Your task to perform on an android device: change keyboard looks Image 0: 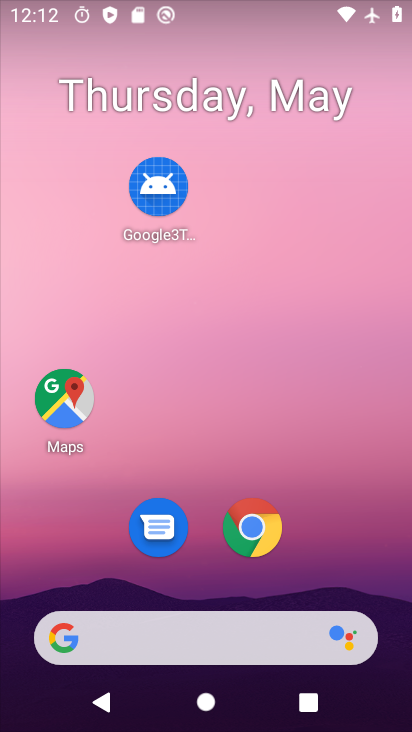
Step 0: press home button
Your task to perform on an android device: change keyboard looks Image 1: 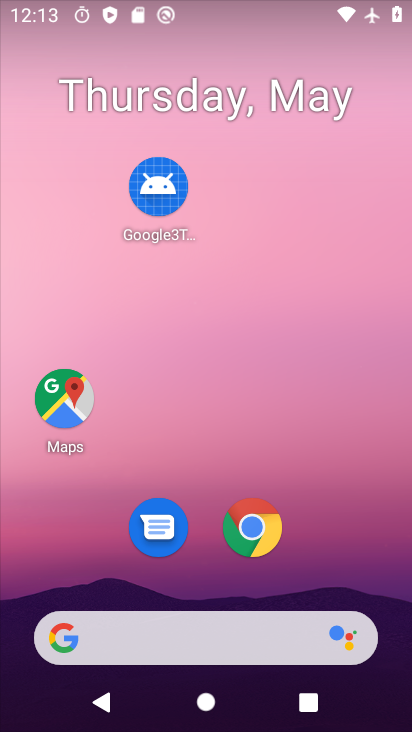
Step 1: drag from (212, 583) to (257, 115)
Your task to perform on an android device: change keyboard looks Image 2: 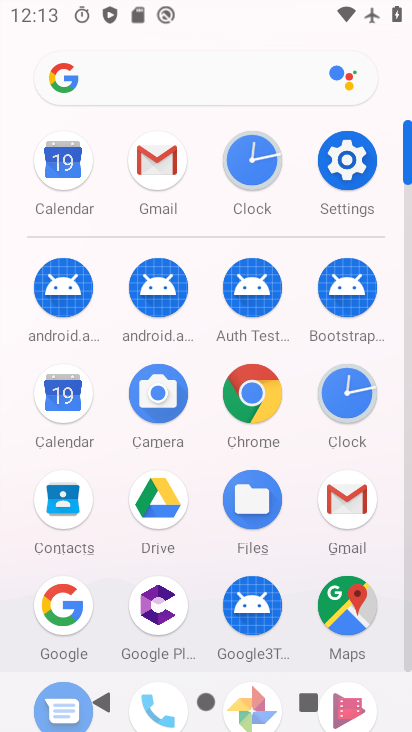
Step 2: click (343, 164)
Your task to perform on an android device: change keyboard looks Image 3: 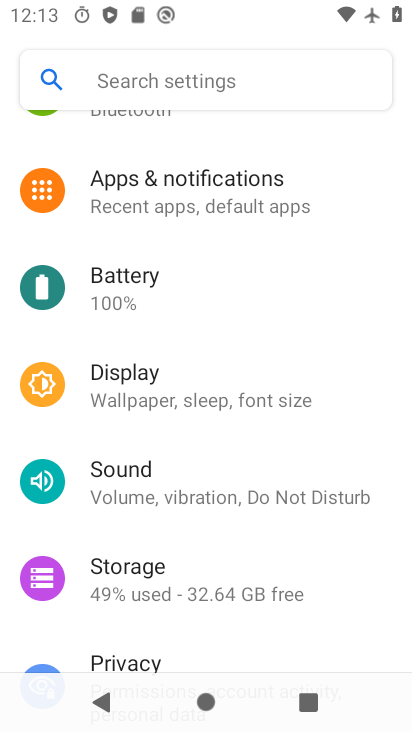
Step 3: drag from (198, 624) to (268, 40)
Your task to perform on an android device: change keyboard looks Image 4: 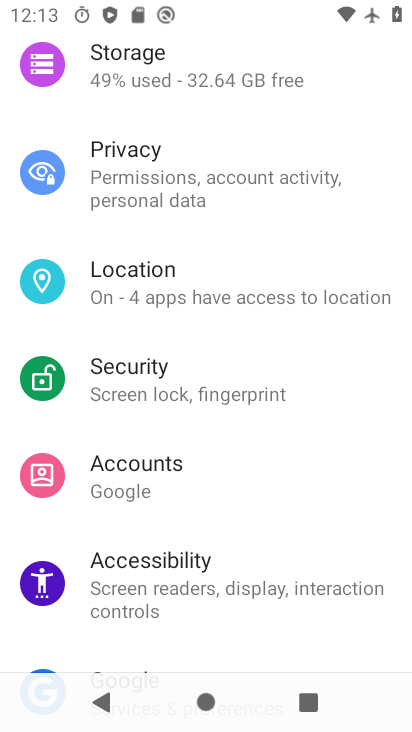
Step 4: drag from (189, 627) to (246, 112)
Your task to perform on an android device: change keyboard looks Image 5: 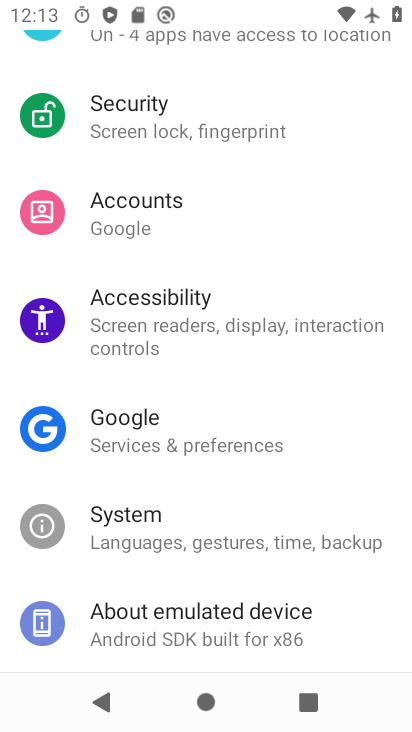
Step 5: click (146, 528)
Your task to perform on an android device: change keyboard looks Image 6: 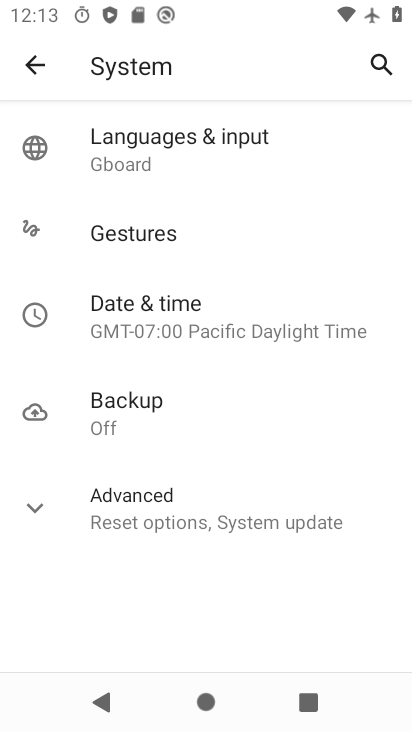
Step 6: click (60, 512)
Your task to perform on an android device: change keyboard looks Image 7: 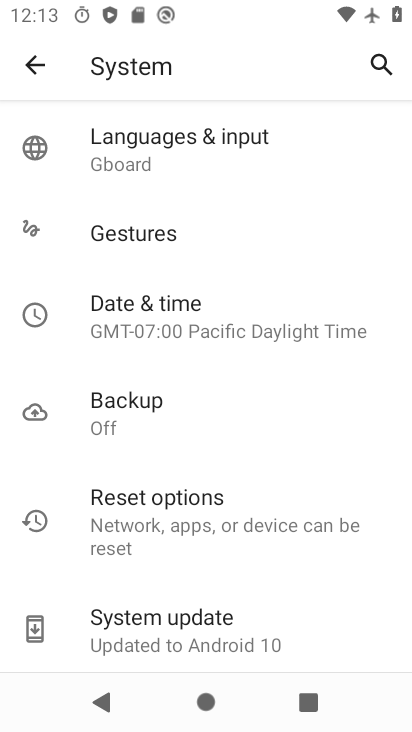
Step 7: drag from (172, 627) to (206, 299)
Your task to perform on an android device: change keyboard looks Image 8: 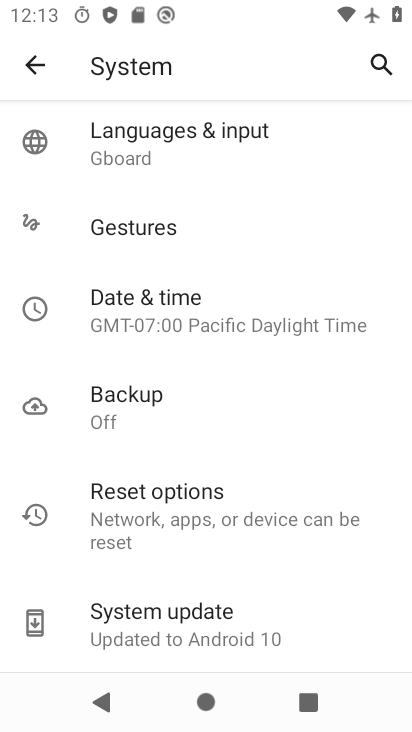
Step 8: click (167, 139)
Your task to perform on an android device: change keyboard looks Image 9: 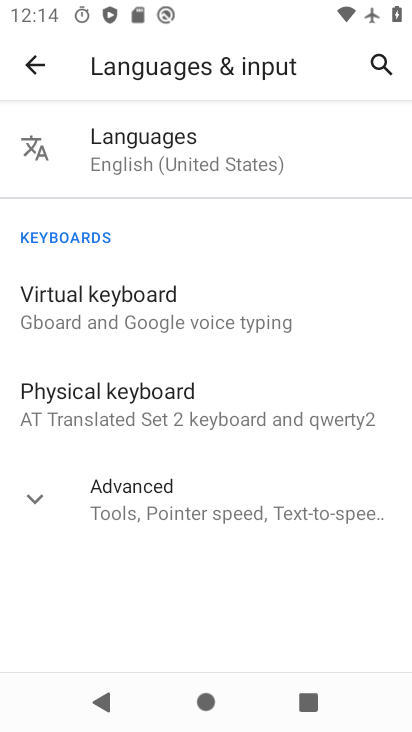
Step 9: click (122, 298)
Your task to perform on an android device: change keyboard looks Image 10: 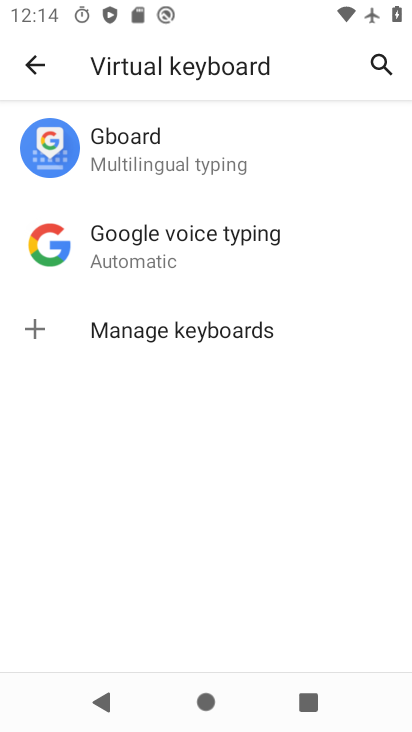
Step 10: click (179, 144)
Your task to perform on an android device: change keyboard looks Image 11: 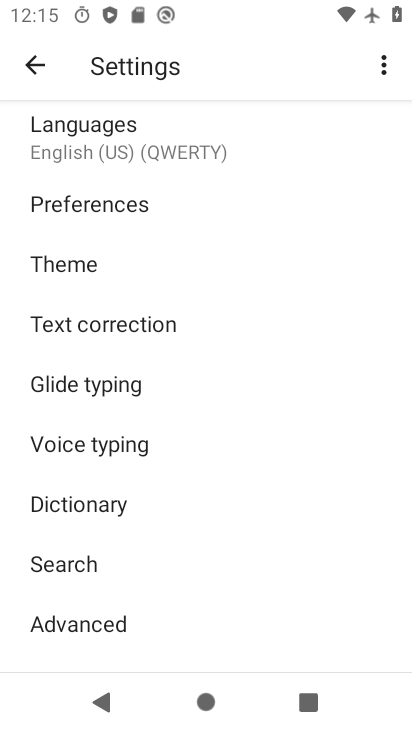
Step 11: click (106, 262)
Your task to perform on an android device: change keyboard looks Image 12: 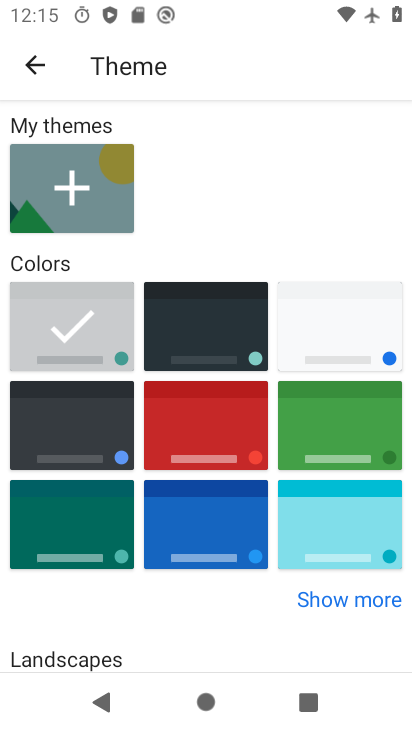
Step 12: click (212, 429)
Your task to perform on an android device: change keyboard looks Image 13: 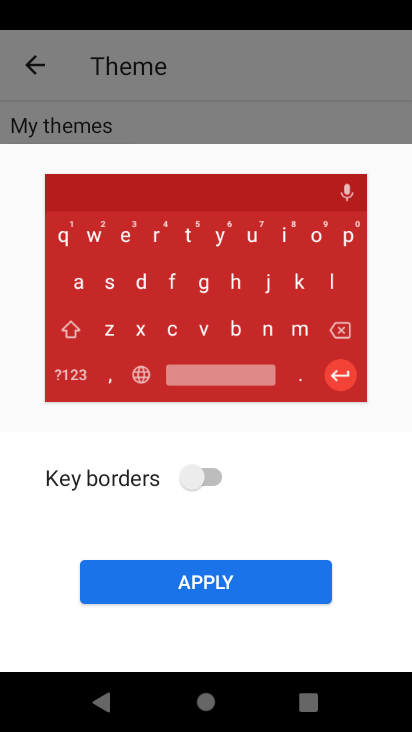
Step 13: click (209, 581)
Your task to perform on an android device: change keyboard looks Image 14: 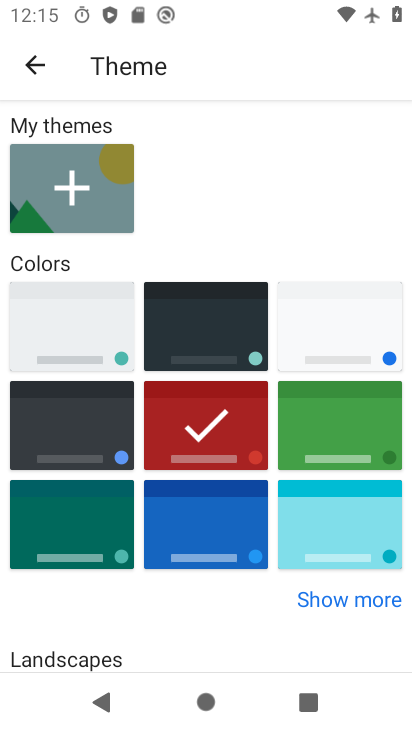
Step 14: task complete